Your task to perform on an android device: open the mobile data screen to see how much data has been used Image 0: 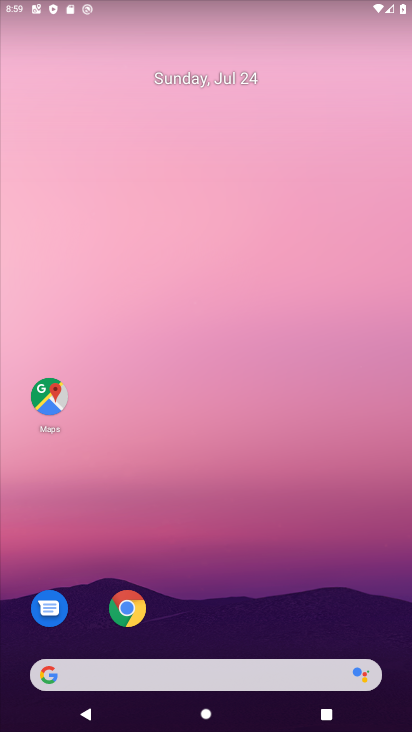
Step 0: drag from (269, 631) to (238, 90)
Your task to perform on an android device: open the mobile data screen to see how much data has been used Image 1: 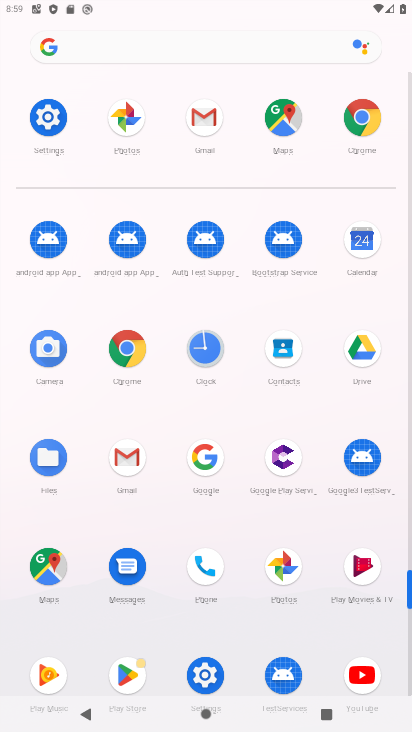
Step 1: click (197, 676)
Your task to perform on an android device: open the mobile data screen to see how much data has been used Image 2: 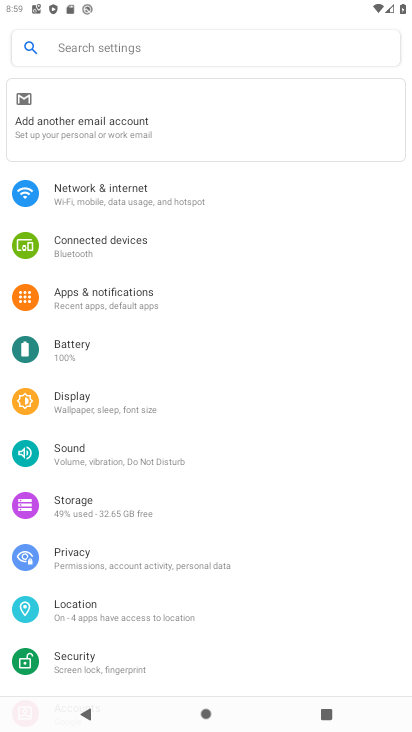
Step 2: click (133, 202)
Your task to perform on an android device: open the mobile data screen to see how much data has been used Image 3: 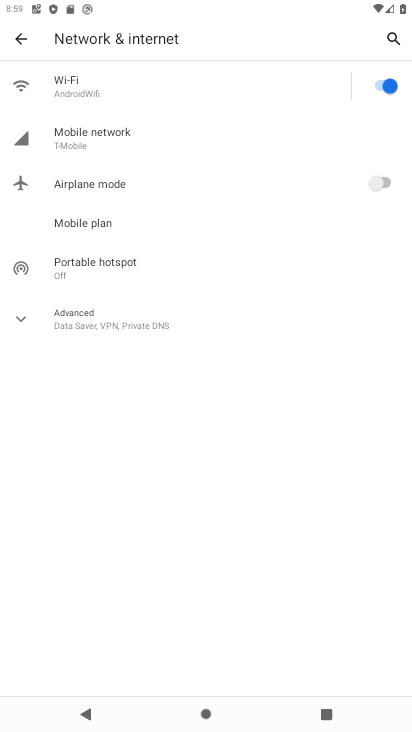
Step 3: click (122, 136)
Your task to perform on an android device: open the mobile data screen to see how much data has been used Image 4: 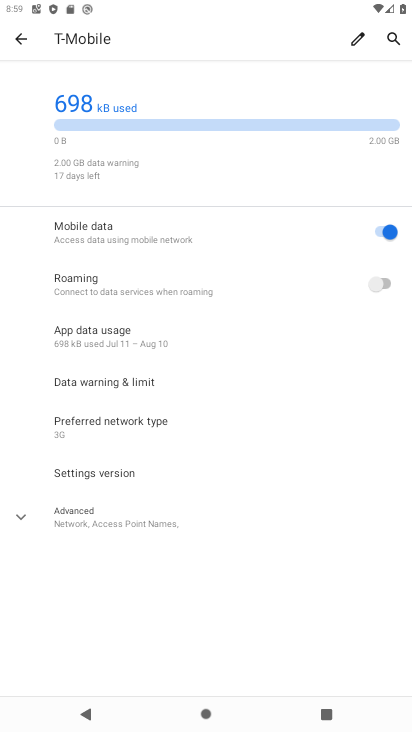
Step 4: click (140, 326)
Your task to perform on an android device: open the mobile data screen to see how much data has been used Image 5: 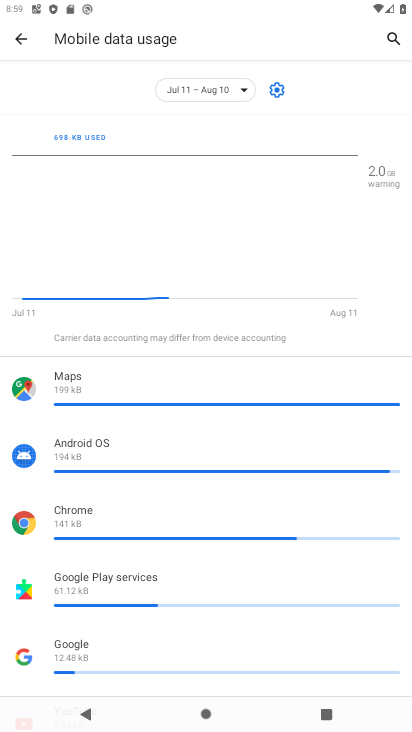
Step 5: task complete